Your task to perform on an android device: What's the weather today? Image 0: 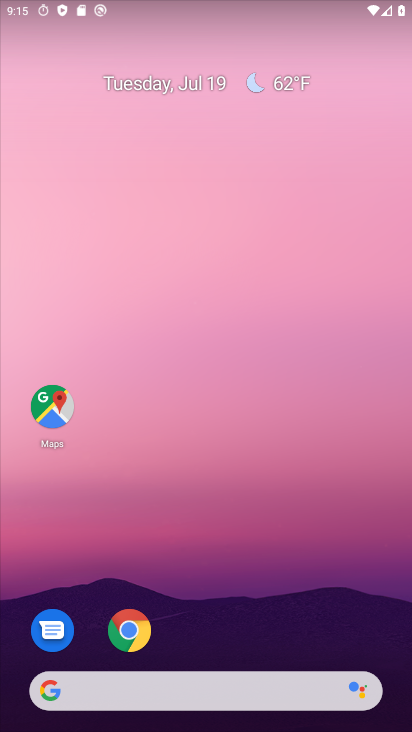
Step 0: drag from (200, 676) to (191, 257)
Your task to perform on an android device: What's the weather today? Image 1: 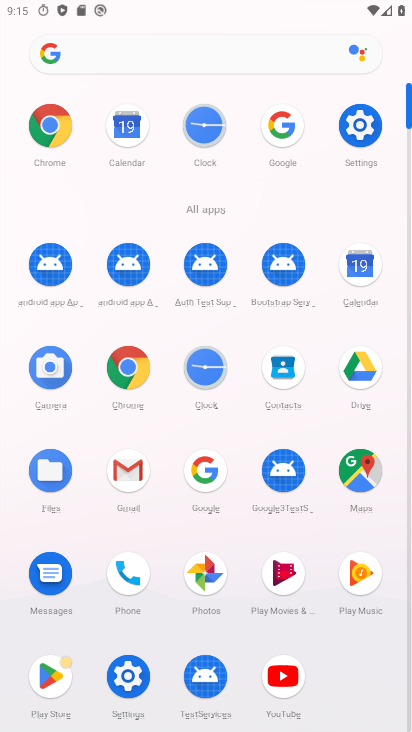
Step 1: click (192, 472)
Your task to perform on an android device: What's the weather today? Image 2: 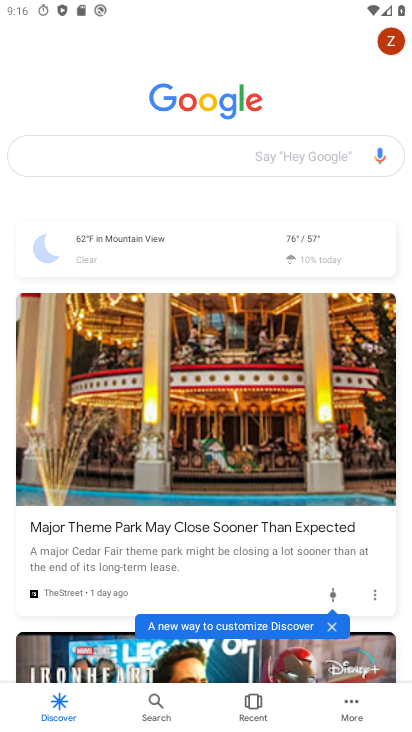
Step 2: click (191, 250)
Your task to perform on an android device: What's the weather today? Image 3: 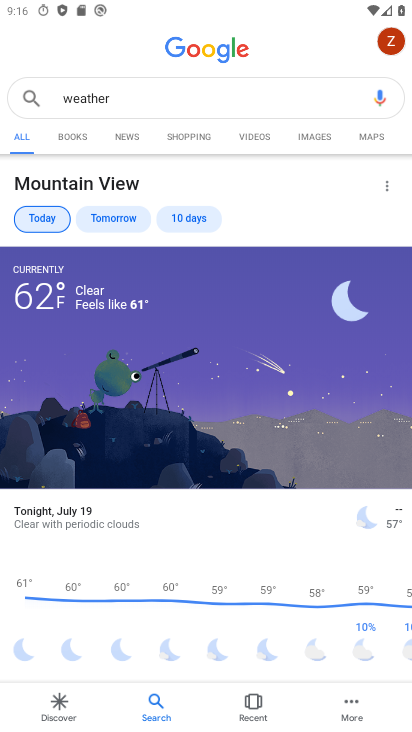
Step 3: task complete